Your task to perform on an android device: delete browsing data in the chrome app Image 0: 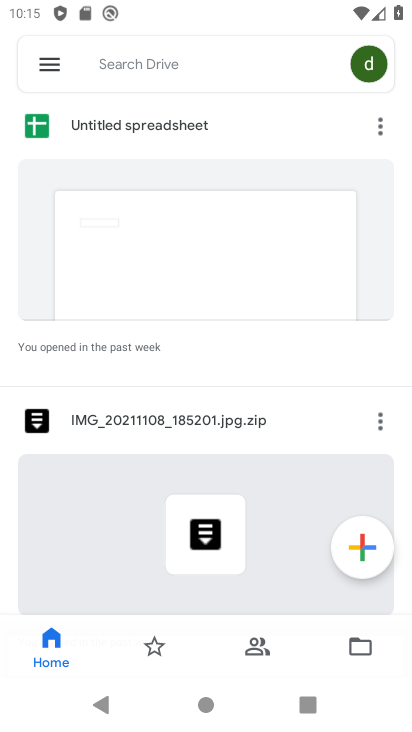
Step 0: press home button
Your task to perform on an android device: delete browsing data in the chrome app Image 1: 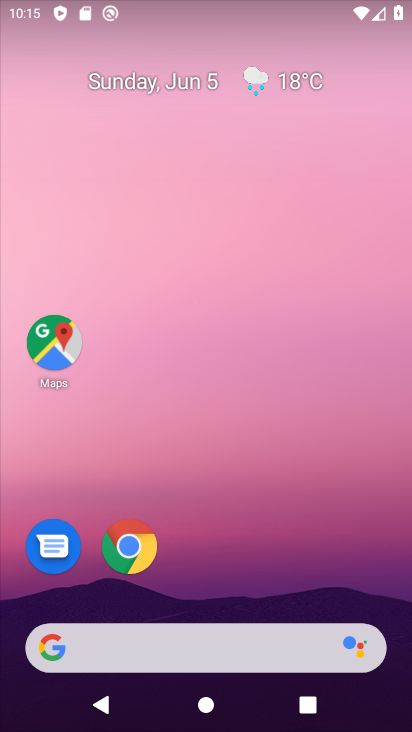
Step 1: click (142, 549)
Your task to perform on an android device: delete browsing data in the chrome app Image 2: 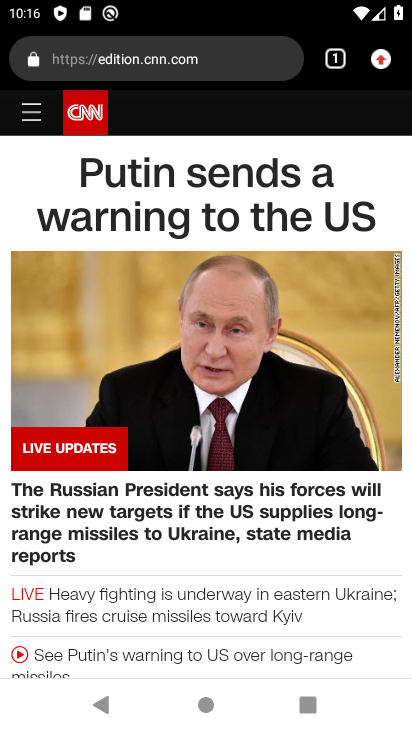
Step 2: click (382, 62)
Your task to perform on an android device: delete browsing data in the chrome app Image 3: 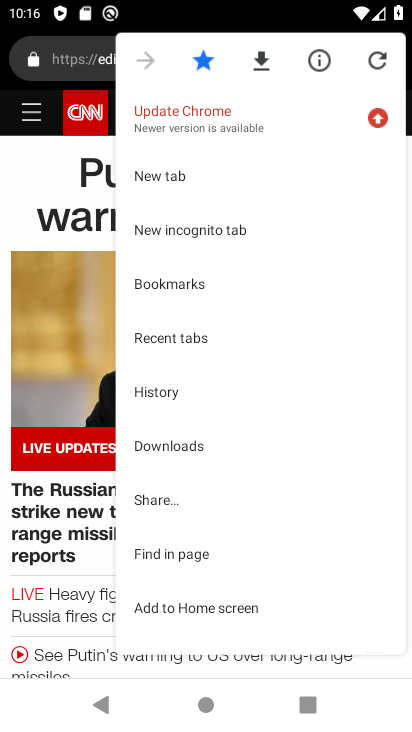
Step 3: drag from (299, 514) to (302, 332)
Your task to perform on an android device: delete browsing data in the chrome app Image 4: 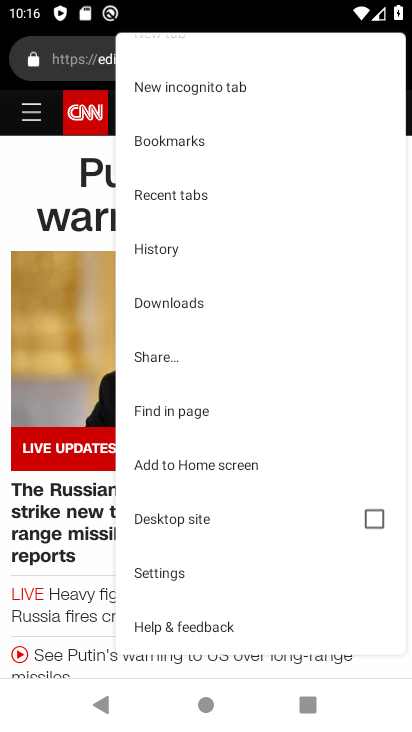
Step 4: click (178, 574)
Your task to perform on an android device: delete browsing data in the chrome app Image 5: 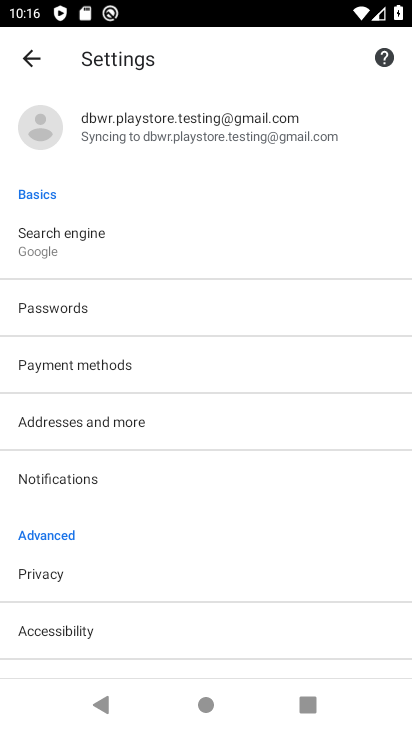
Step 5: click (49, 583)
Your task to perform on an android device: delete browsing data in the chrome app Image 6: 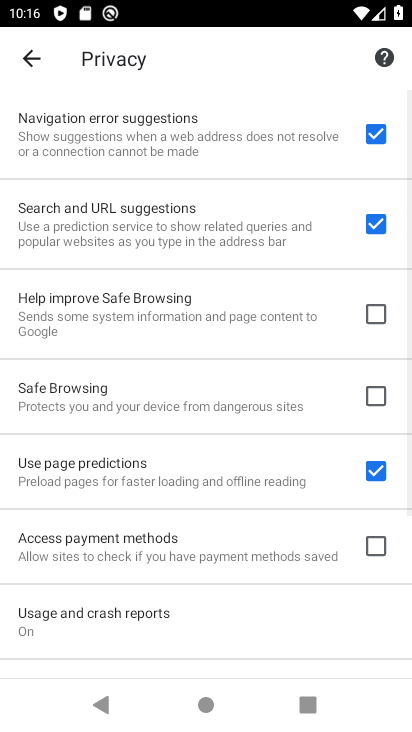
Step 6: drag from (233, 612) to (202, 196)
Your task to perform on an android device: delete browsing data in the chrome app Image 7: 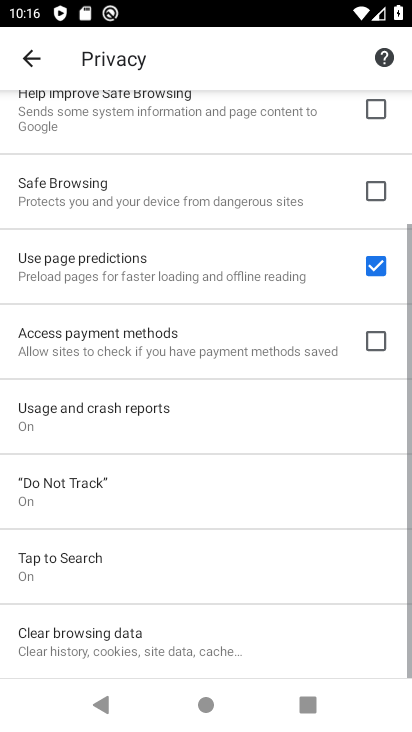
Step 7: click (165, 641)
Your task to perform on an android device: delete browsing data in the chrome app Image 8: 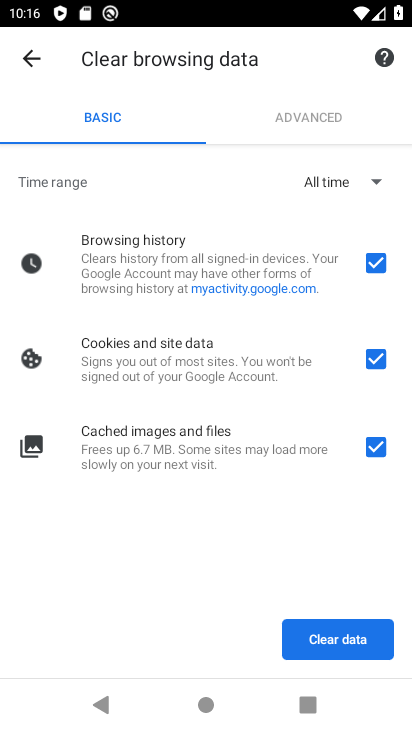
Step 8: click (374, 357)
Your task to perform on an android device: delete browsing data in the chrome app Image 9: 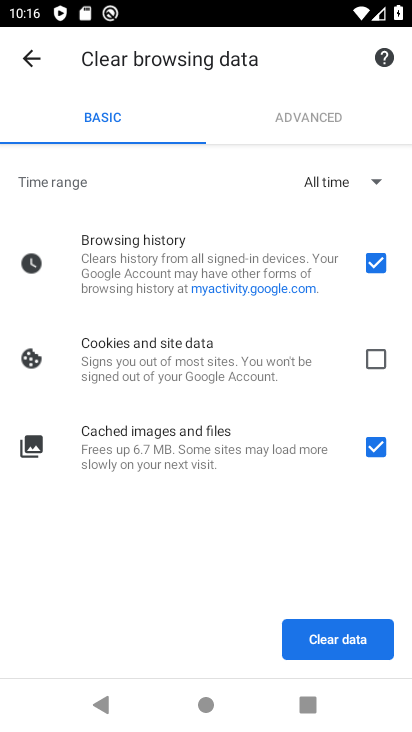
Step 9: click (380, 453)
Your task to perform on an android device: delete browsing data in the chrome app Image 10: 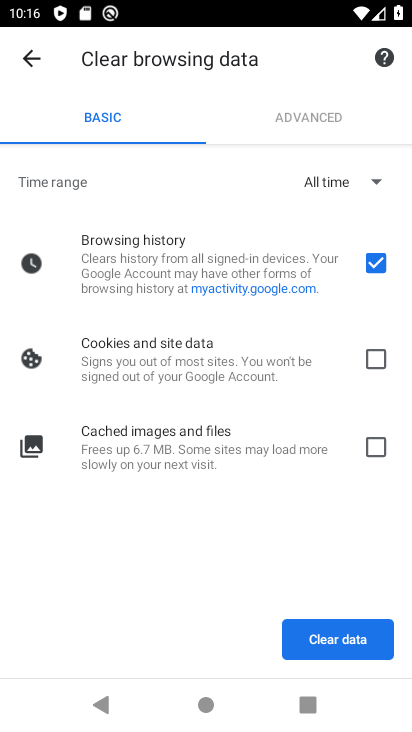
Step 10: click (340, 647)
Your task to perform on an android device: delete browsing data in the chrome app Image 11: 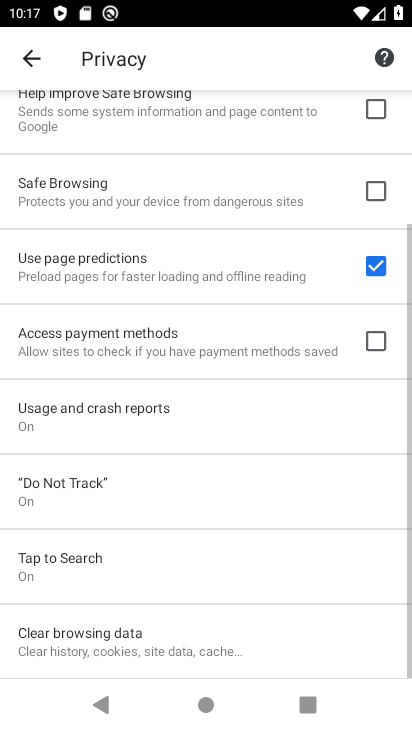
Step 11: task complete